Your task to perform on an android device: Clear the cart on target.com. Add "corsair k70" to the cart on target.com, then select checkout. Image 0: 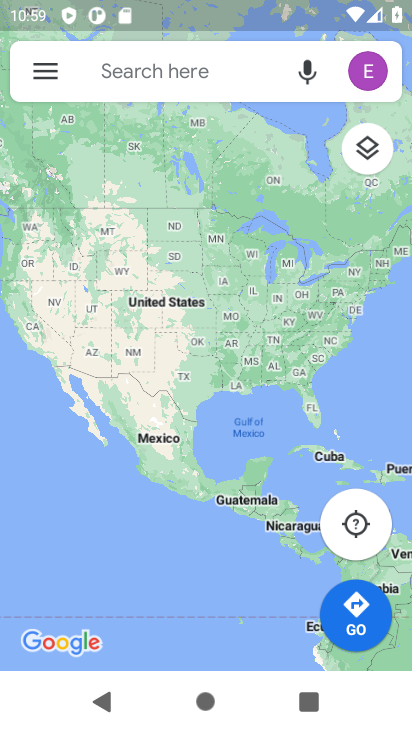
Step 0: press home button
Your task to perform on an android device: Clear the cart on target.com. Add "corsair k70" to the cart on target.com, then select checkout. Image 1: 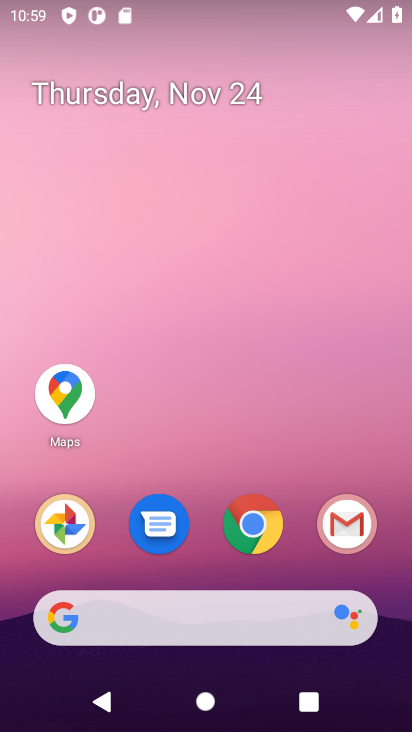
Step 1: click (247, 522)
Your task to perform on an android device: Clear the cart on target.com. Add "corsair k70" to the cart on target.com, then select checkout. Image 2: 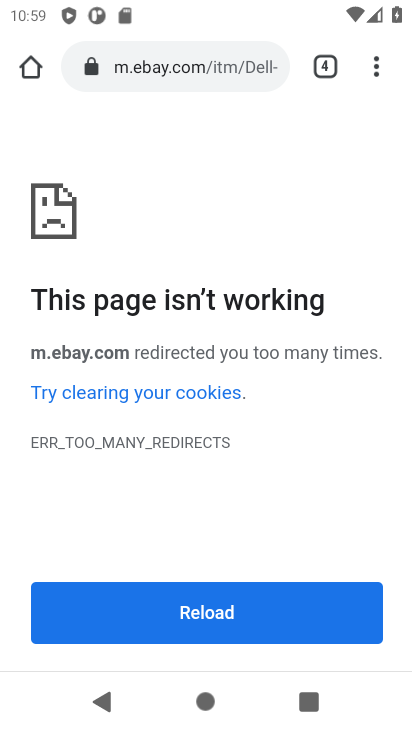
Step 2: click (170, 69)
Your task to perform on an android device: Clear the cart on target.com. Add "corsair k70" to the cart on target.com, then select checkout. Image 3: 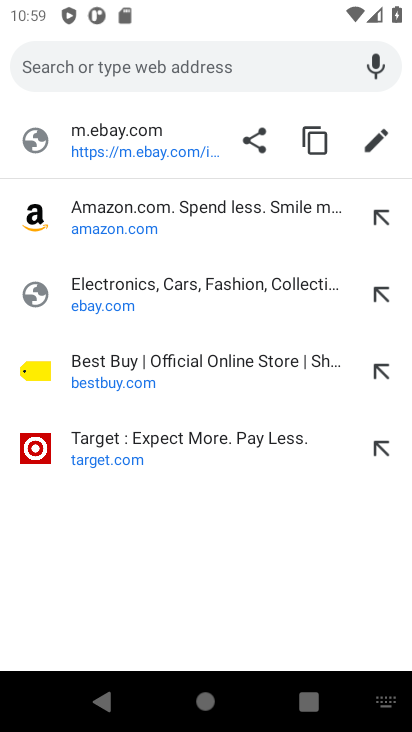
Step 3: click (104, 451)
Your task to perform on an android device: Clear the cart on target.com. Add "corsair k70" to the cart on target.com, then select checkout. Image 4: 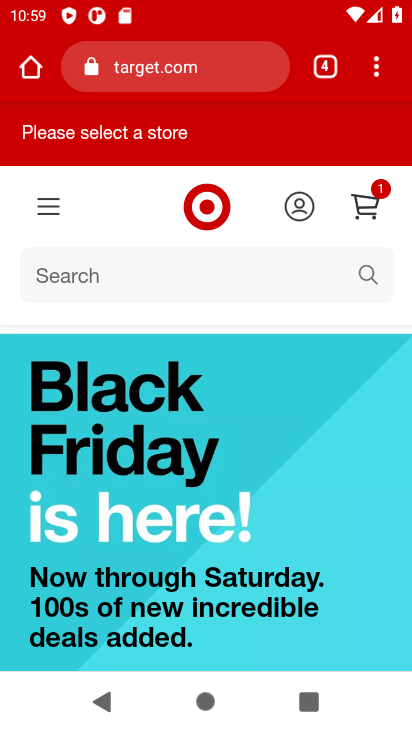
Step 4: click (362, 215)
Your task to perform on an android device: Clear the cart on target.com. Add "corsair k70" to the cart on target.com, then select checkout. Image 5: 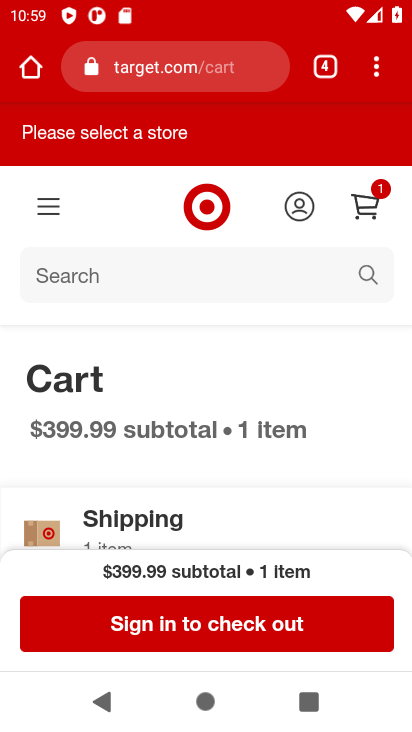
Step 5: drag from (228, 487) to (206, 191)
Your task to perform on an android device: Clear the cart on target.com. Add "corsair k70" to the cart on target.com, then select checkout. Image 6: 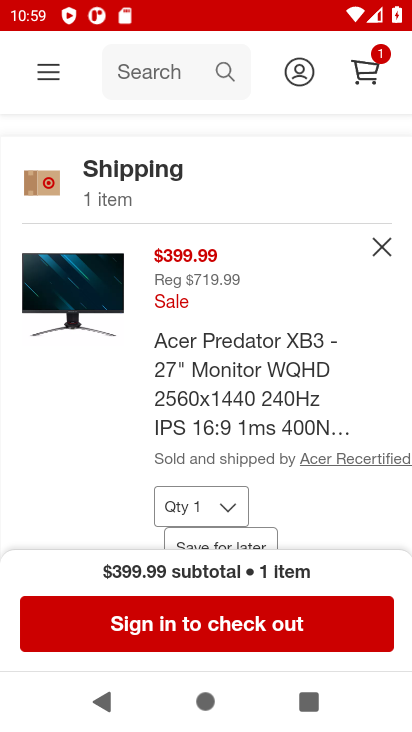
Step 6: click (380, 250)
Your task to perform on an android device: Clear the cart on target.com. Add "corsair k70" to the cart on target.com, then select checkout. Image 7: 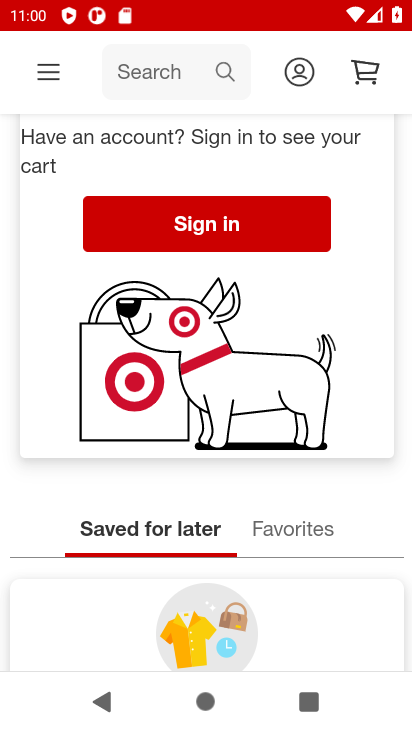
Step 7: drag from (368, 313) to (369, 479)
Your task to perform on an android device: Clear the cart on target.com. Add "corsair k70" to the cart on target.com, then select checkout. Image 8: 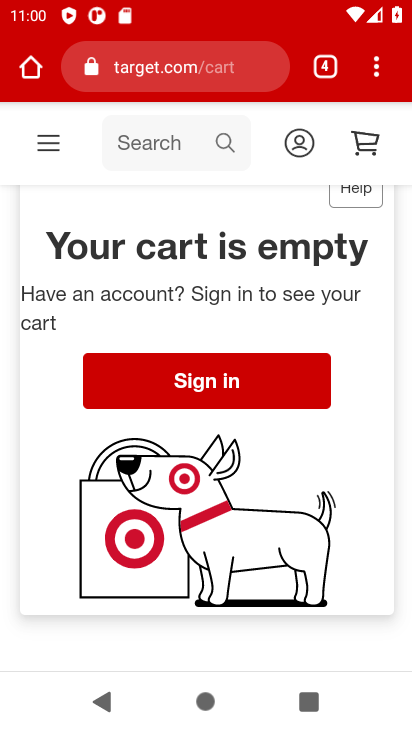
Step 8: drag from (306, 306) to (316, 497)
Your task to perform on an android device: Clear the cart on target.com. Add "corsair k70" to the cart on target.com, then select checkout. Image 9: 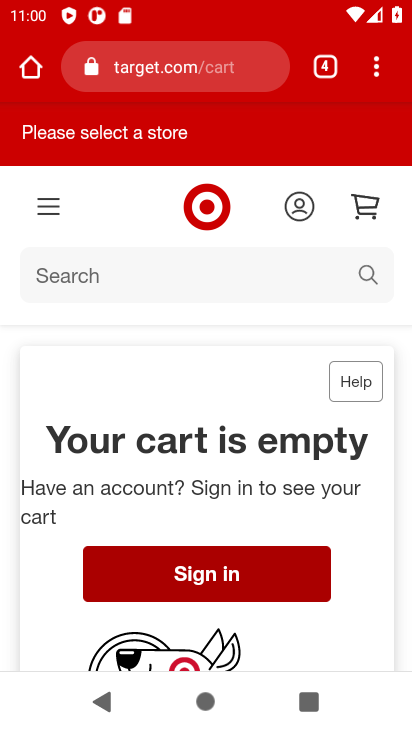
Step 9: click (367, 279)
Your task to perform on an android device: Clear the cart on target.com. Add "corsair k70" to the cart on target.com, then select checkout. Image 10: 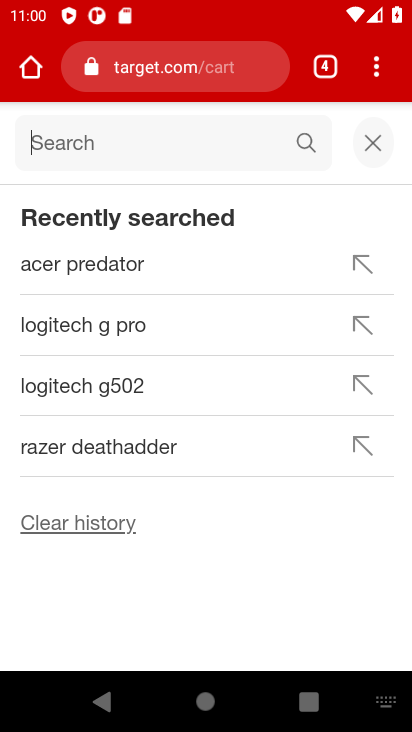
Step 10: type "corsair k70"
Your task to perform on an android device: Clear the cart on target.com. Add "corsair k70" to the cart on target.com, then select checkout. Image 11: 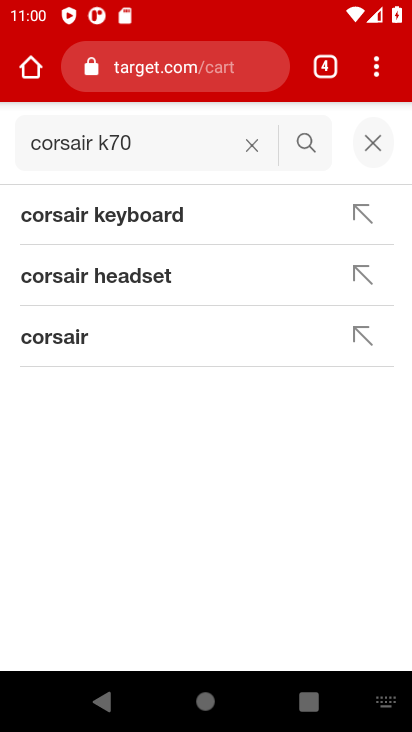
Step 11: click (306, 142)
Your task to perform on an android device: Clear the cart on target.com. Add "corsair k70" to the cart on target.com, then select checkout. Image 12: 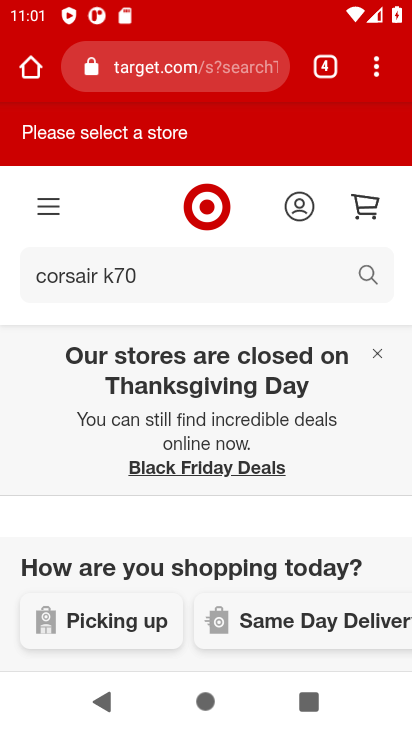
Step 12: task complete